Your task to perform on an android device: Go to sound settings Image 0: 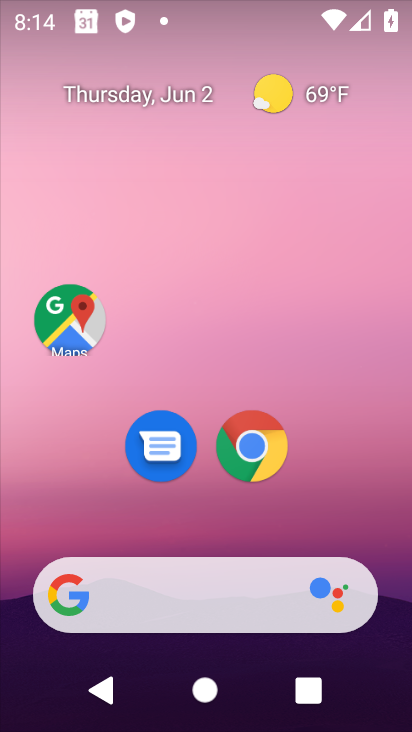
Step 0: drag from (158, 450) to (222, 73)
Your task to perform on an android device: Go to sound settings Image 1: 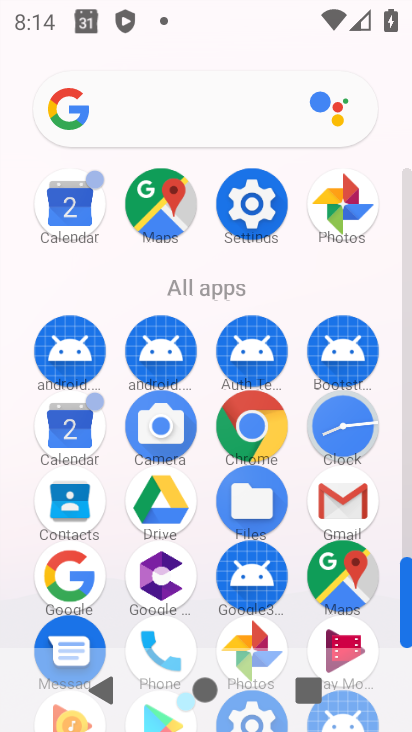
Step 1: click (262, 197)
Your task to perform on an android device: Go to sound settings Image 2: 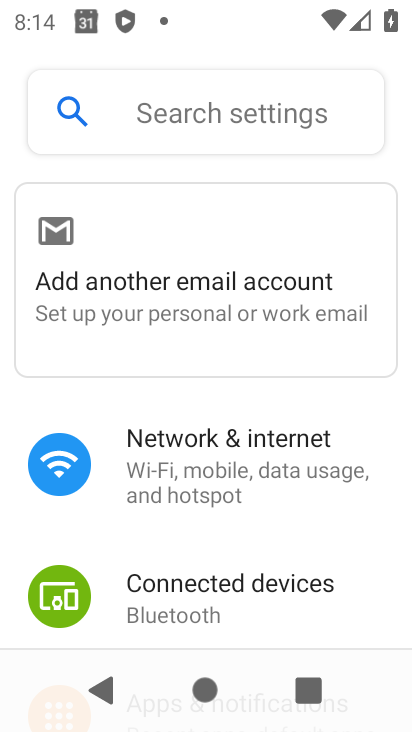
Step 2: drag from (187, 553) to (275, 0)
Your task to perform on an android device: Go to sound settings Image 3: 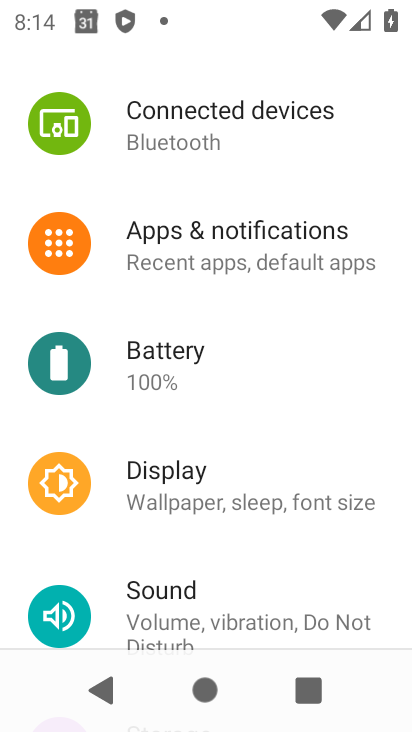
Step 3: click (162, 610)
Your task to perform on an android device: Go to sound settings Image 4: 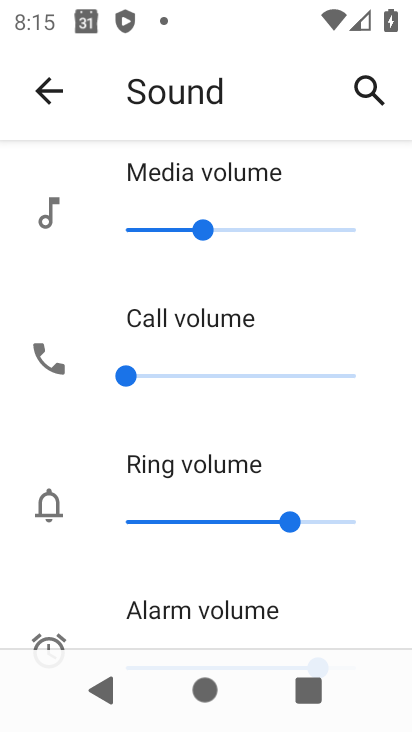
Step 4: task complete